Your task to perform on an android device: toggle improve location accuracy Image 0: 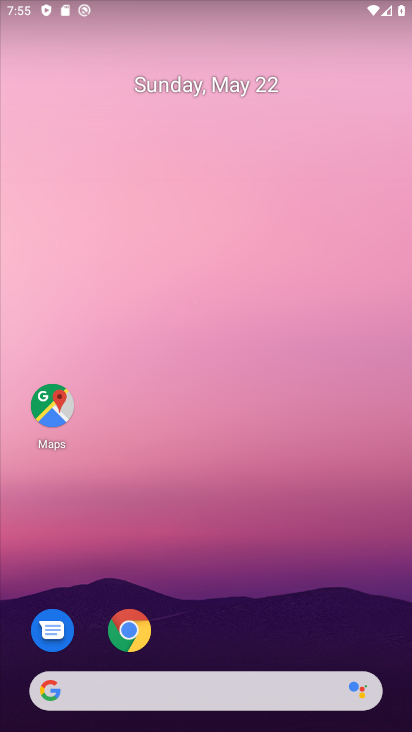
Step 0: drag from (367, 631) to (293, 222)
Your task to perform on an android device: toggle improve location accuracy Image 1: 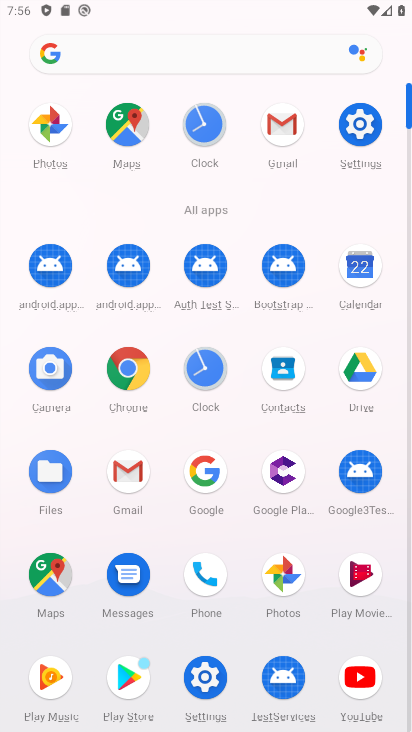
Step 1: click (358, 172)
Your task to perform on an android device: toggle improve location accuracy Image 2: 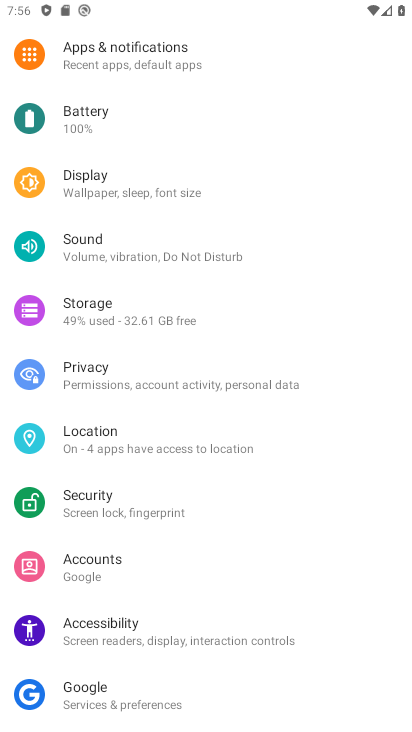
Step 2: click (155, 456)
Your task to perform on an android device: toggle improve location accuracy Image 3: 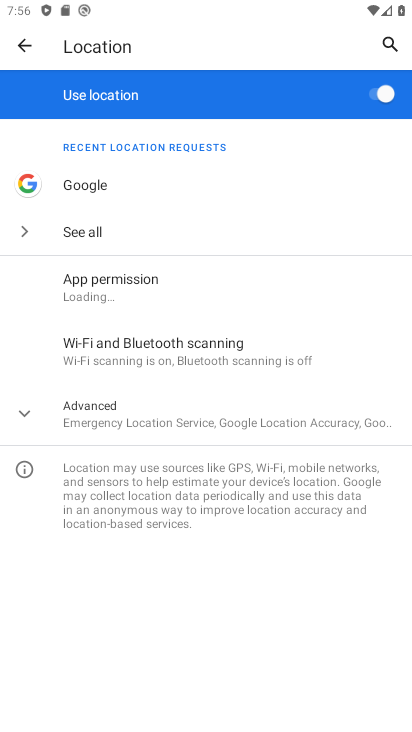
Step 3: click (175, 433)
Your task to perform on an android device: toggle improve location accuracy Image 4: 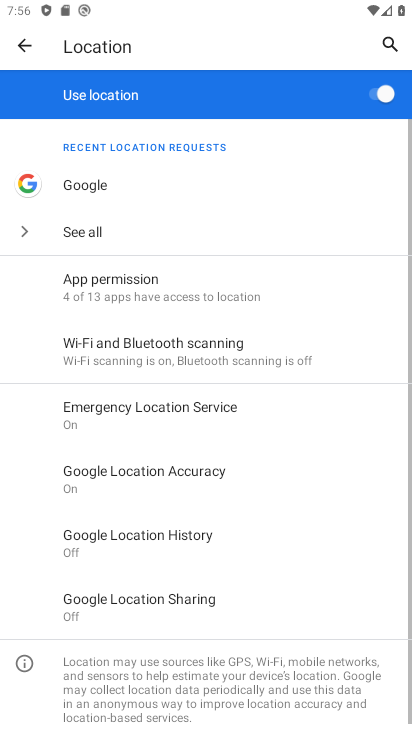
Step 4: click (202, 471)
Your task to perform on an android device: toggle improve location accuracy Image 5: 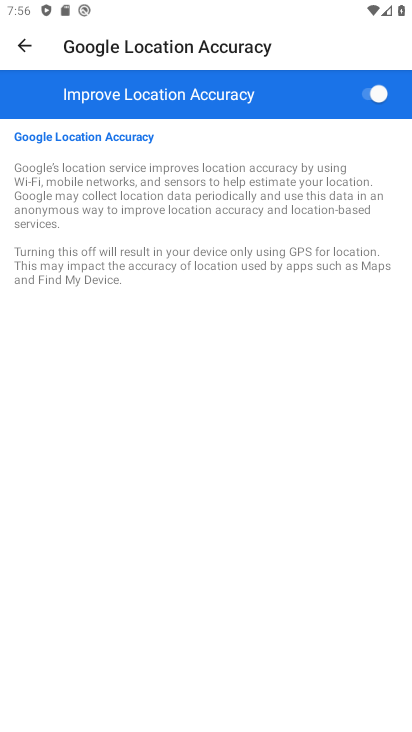
Step 5: click (354, 102)
Your task to perform on an android device: toggle improve location accuracy Image 6: 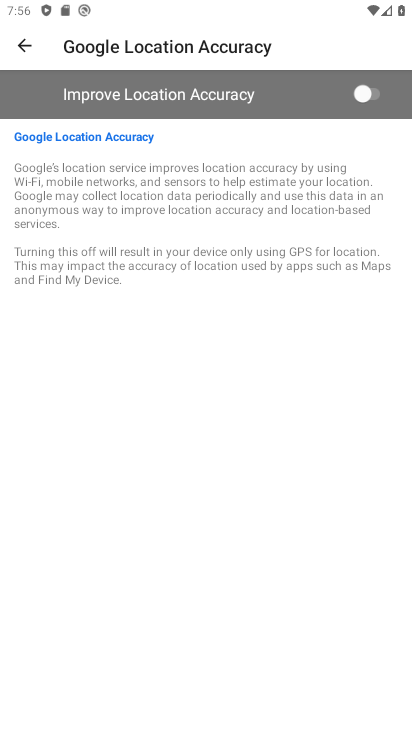
Step 6: task complete